Your task to perform on an android device: Open the phone app and click the voicemail tab. Image 0: 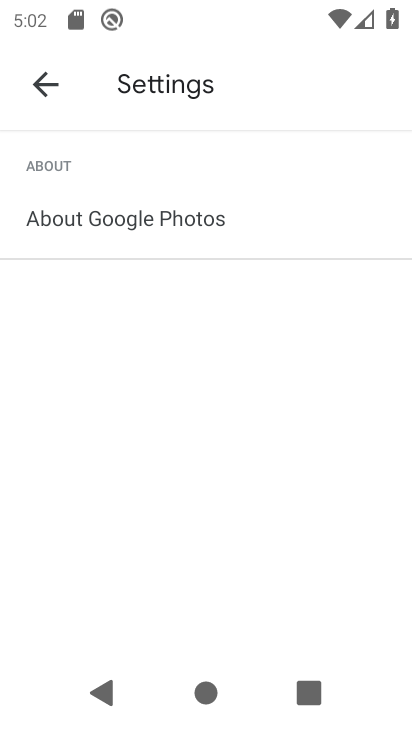
Step 0: press home button
Your task to perform on an android device: Open the phone app and click the voicemail tab. Image 1: 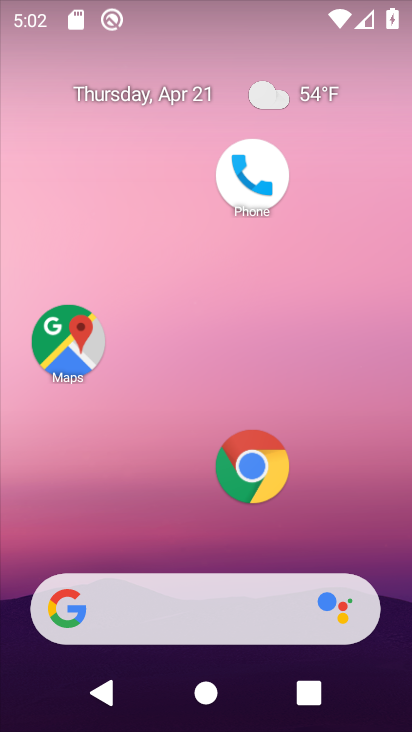
Step 1: click (320, 63)
Your task to perform on an android device: Open the phone app and click the voicemail tab. Image 2: 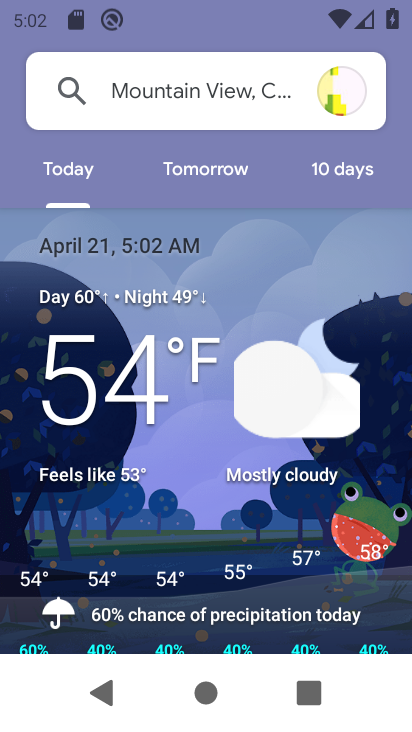
Step 2: press home button
Your task to perform on an android device: Open the phone app and click the voicemail tab. Image 3: 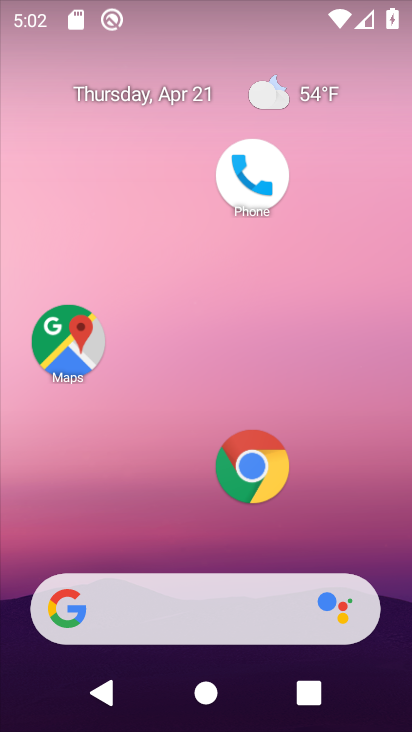
Step 3: drag from (355, 256) to (351, 26)
Your task to perform on an android device: Open the phone app and click the voicemail tab. Image 4: 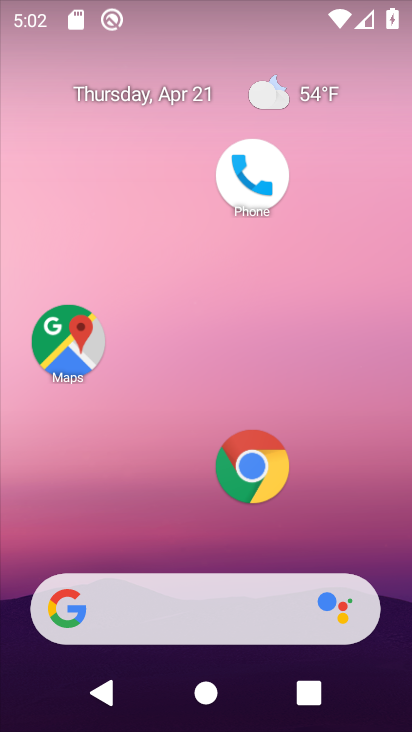
Step 4: drag from (279, 507) to (305, 52)
Your task to perform on an android device: Open the phone app and click the voicemail tab. Image 5: 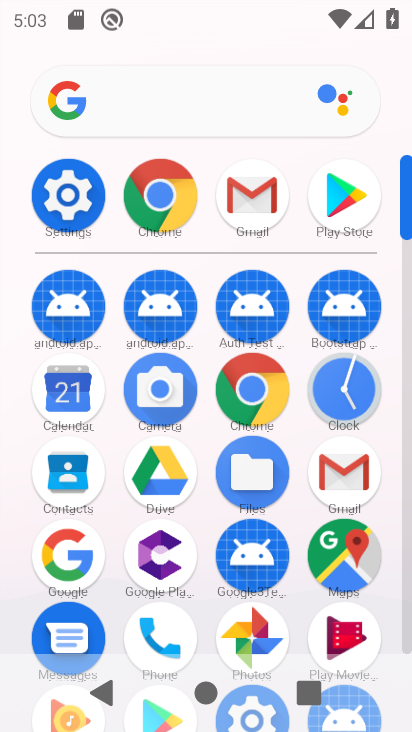
Step 5: drag from (199, 549) to (215, 187)
Your task to perform on an android device: Open the phone app and click the voicemail tab. Image 6: 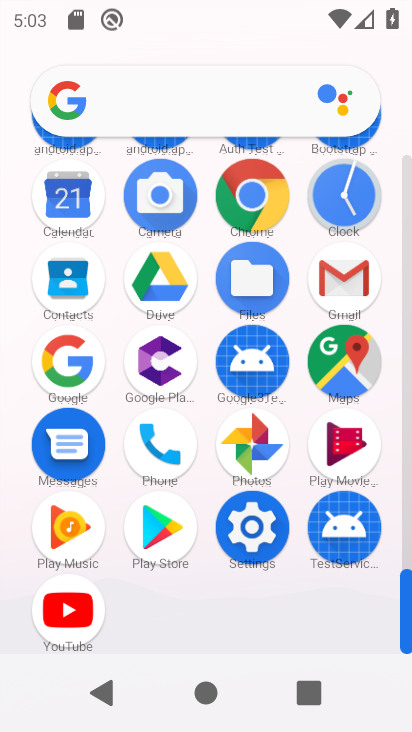
Step 6: click (154, 450)
Your task to perform on an android device: Open the phone app and click the voicemail tab. Image 7: 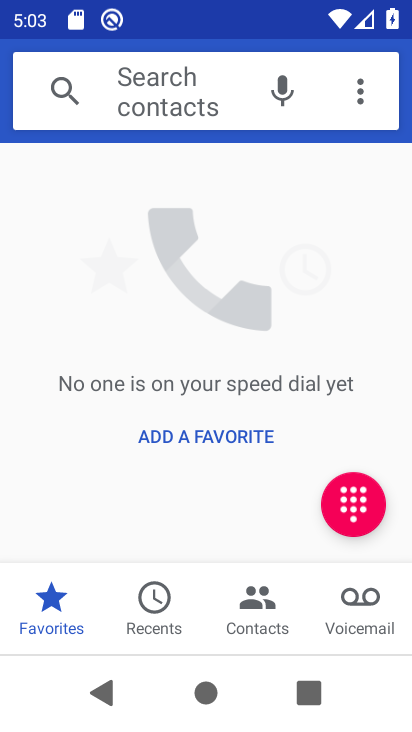
Step 7: click (368, 605)
Your task to perform on an android device: Open the phone app and click the voicemail tab. Image 8: 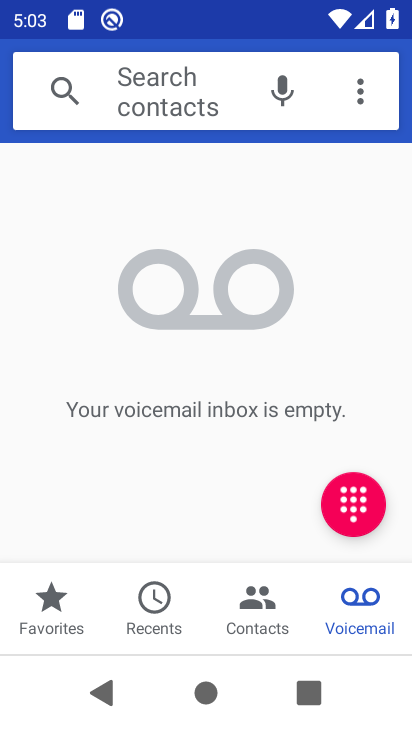
Step 8: click (376, 623)
Your task to perform on an android device: Open the phone app and click the voicemail tab. Image 9: 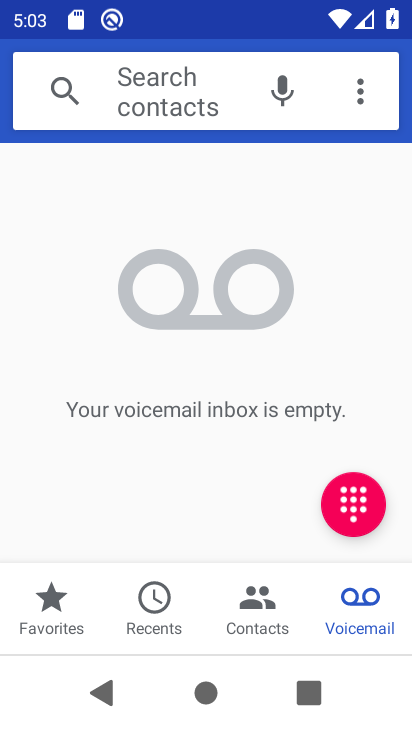
Step 9: task complete